Your task to perform on an android device: toggle show notifications on the lock screen Image 0: 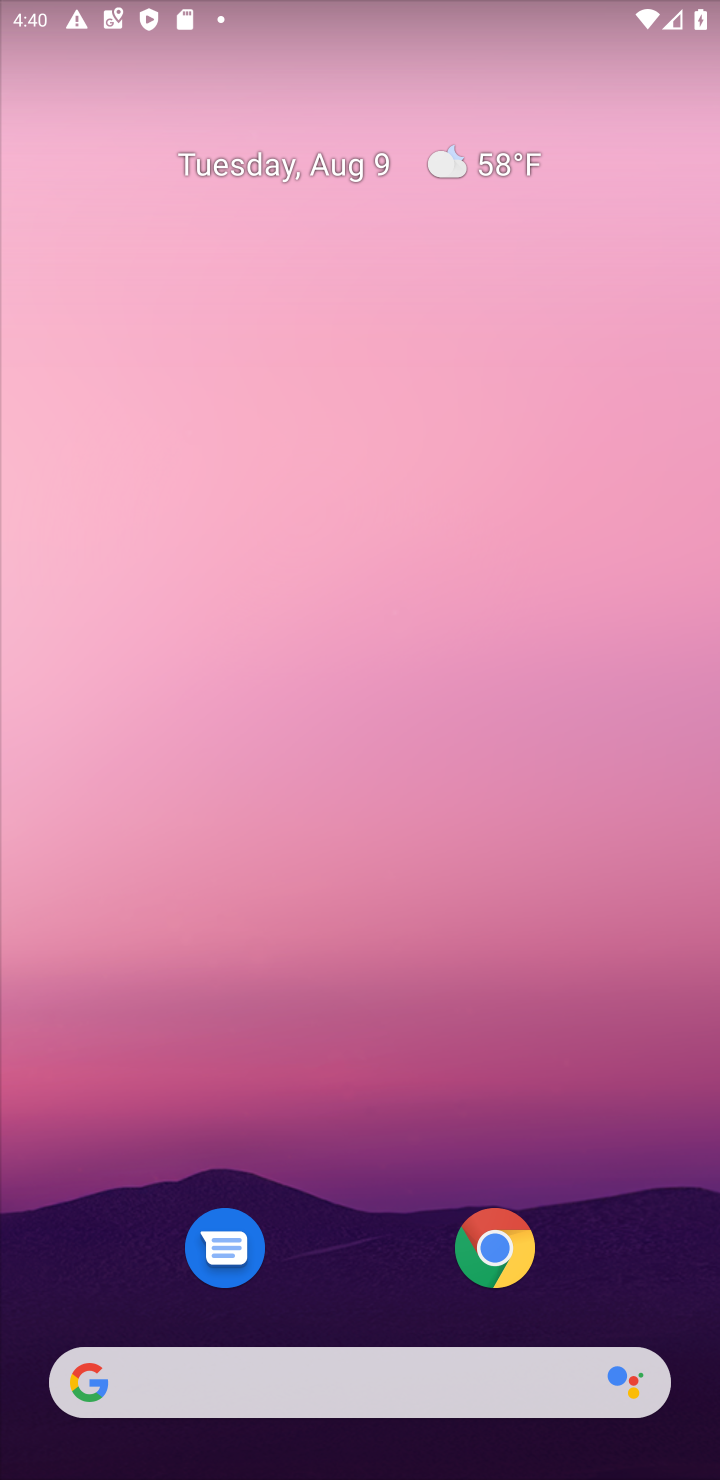
Step 0: drag from (308, 974) to (151, 263)
Your task to perform on an android device: toggle show notifications on the lock screen Image 1: 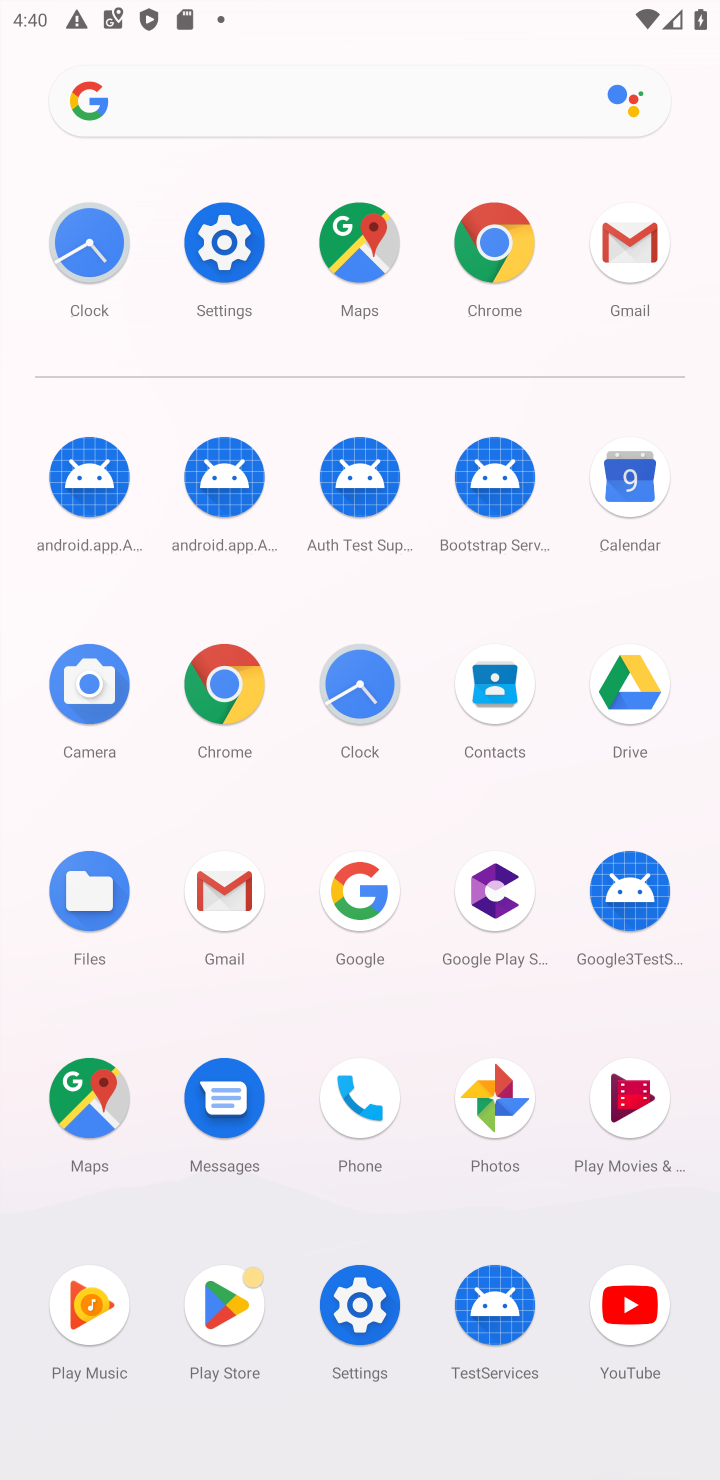
Step 1: click (368, 1312)
Your task to perform on an android device: toggle show notifications on the lock screen Image 2: 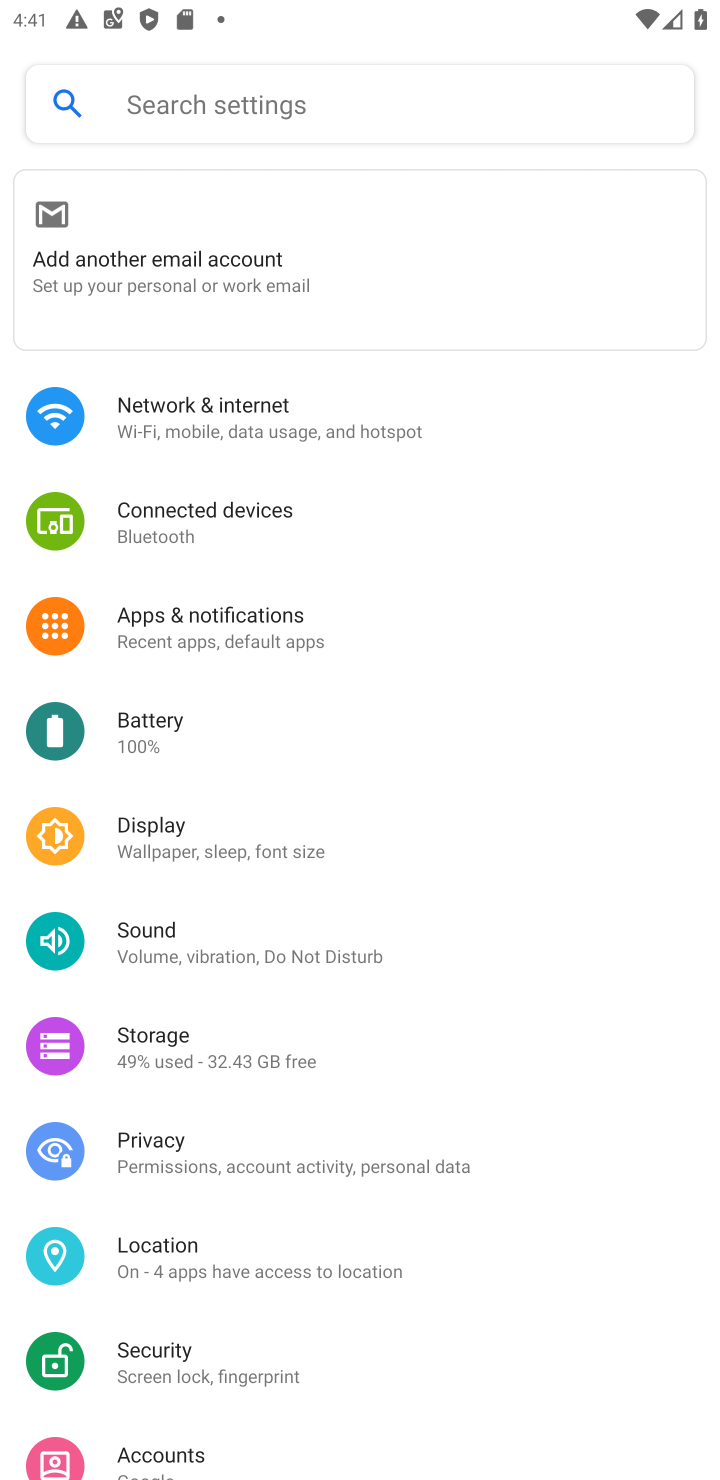
Step 2: click (237, 630)
Your task to perform on an android device: toggle show notifications on the lock screen Image 3: 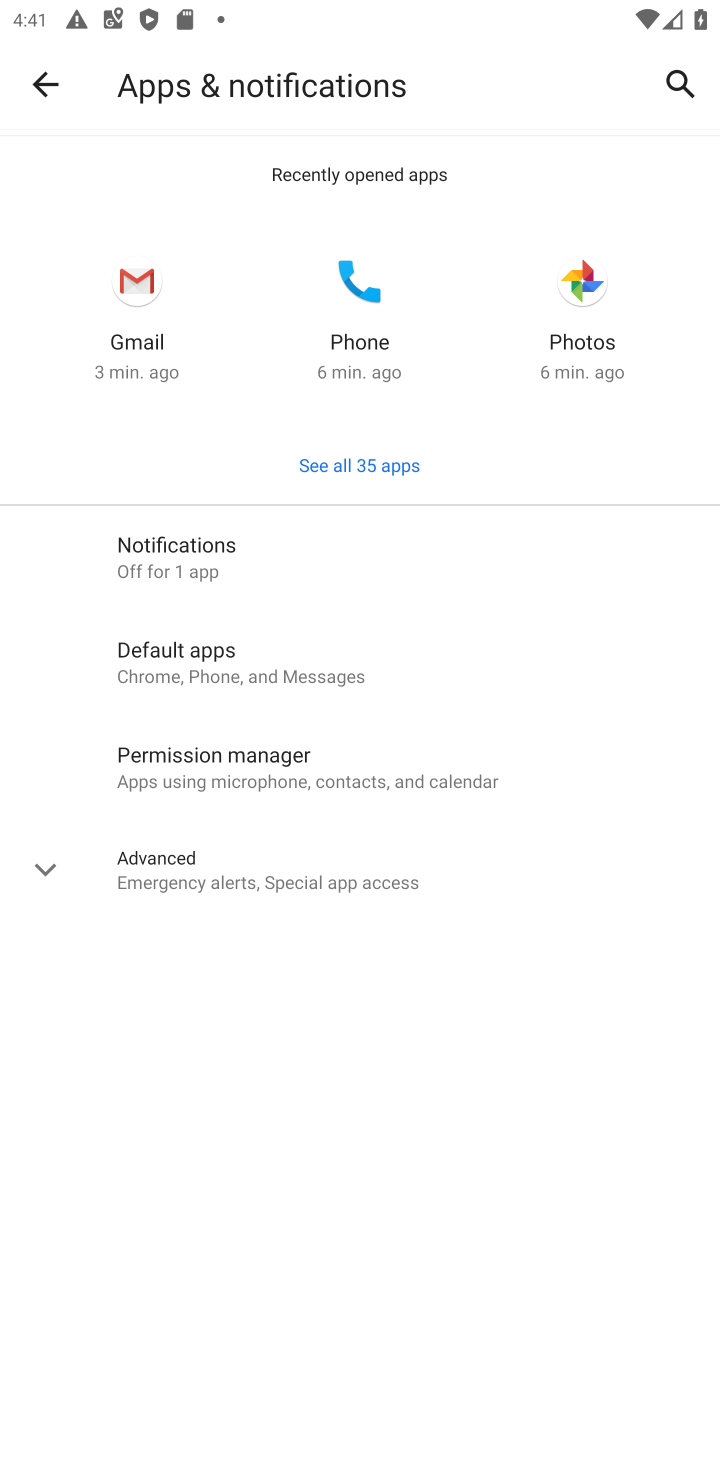
Step 3: click (185, 556)
Your task to perform on an android device: toggle show notifications on the lock screen Image 4: 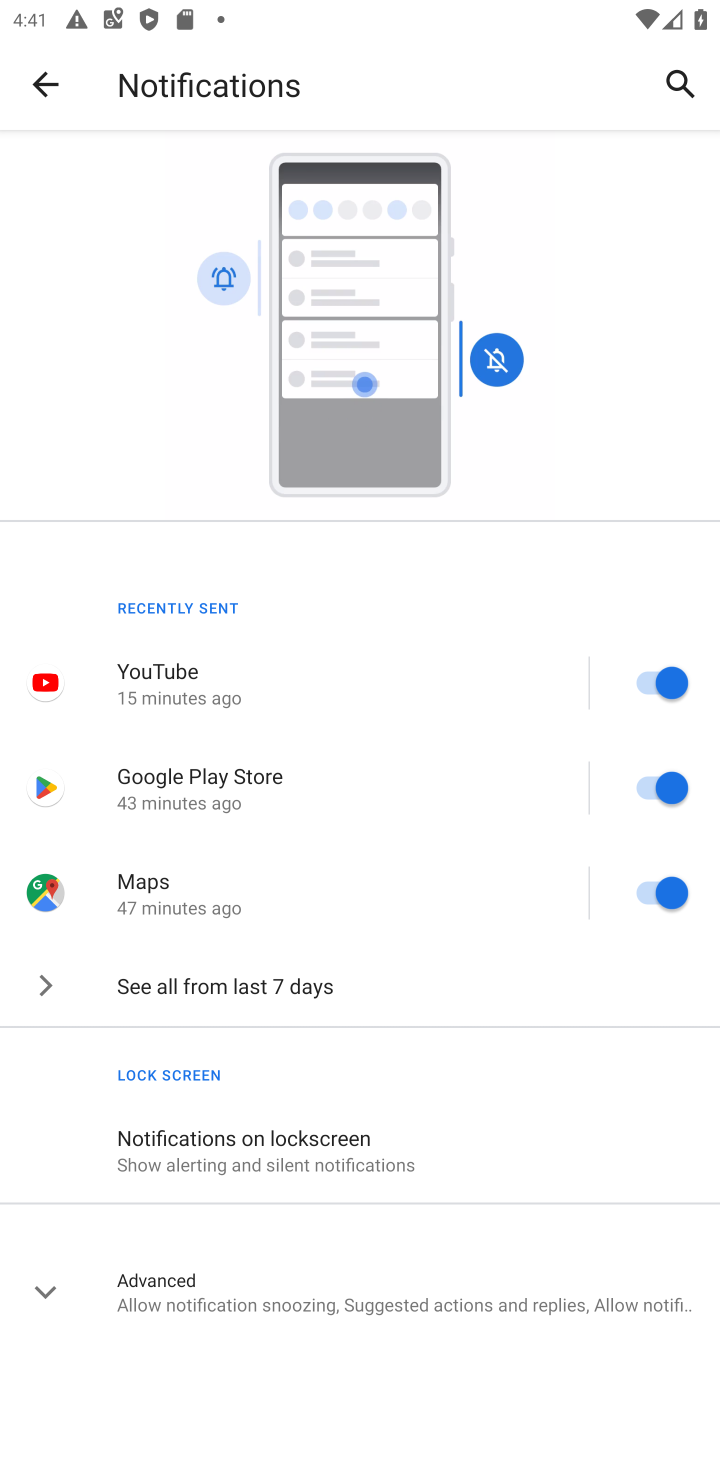
Step 4: click (320, 1139)
Your task to perform on an android device: toggle show notifications on the lock screen Image 5: 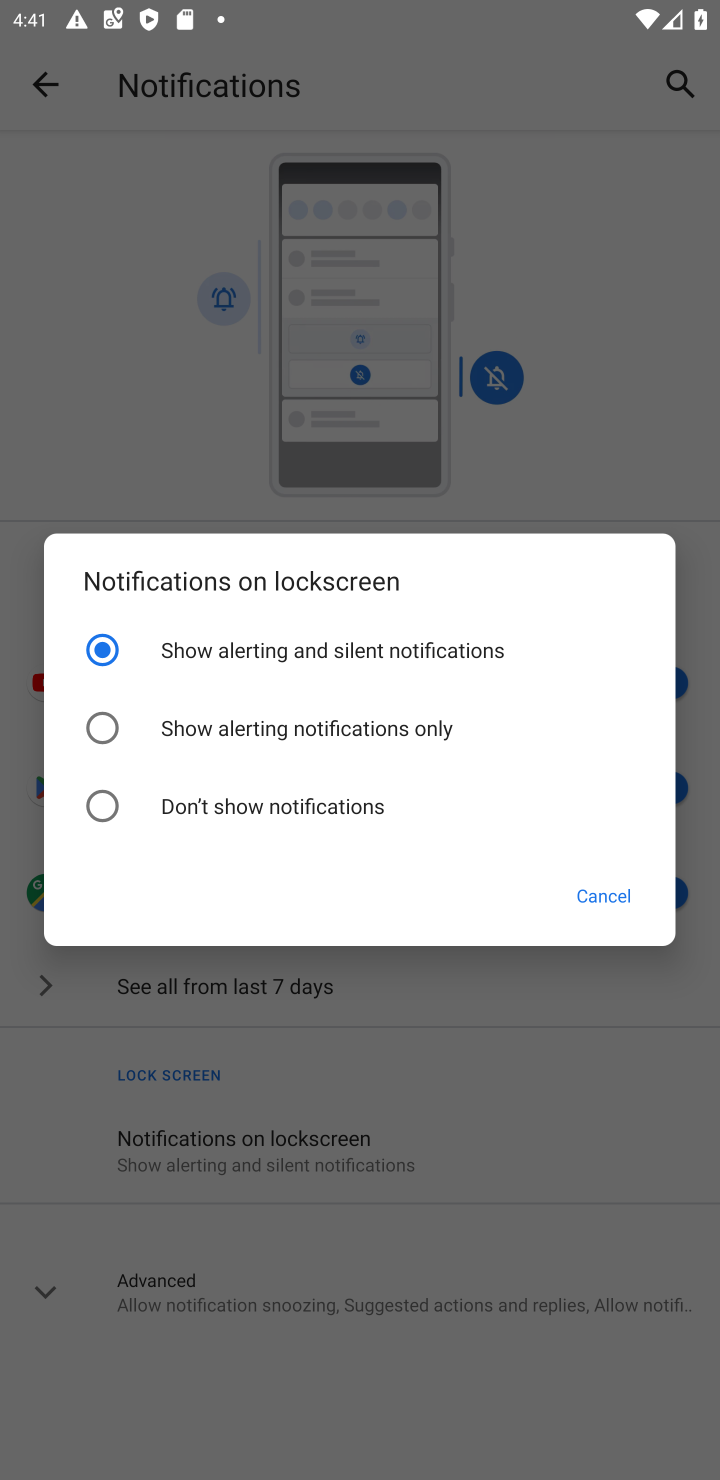
Step 5: click (280, 729)
Your task to perform on an android device: toggle show notifications on the lock screen Image 6: 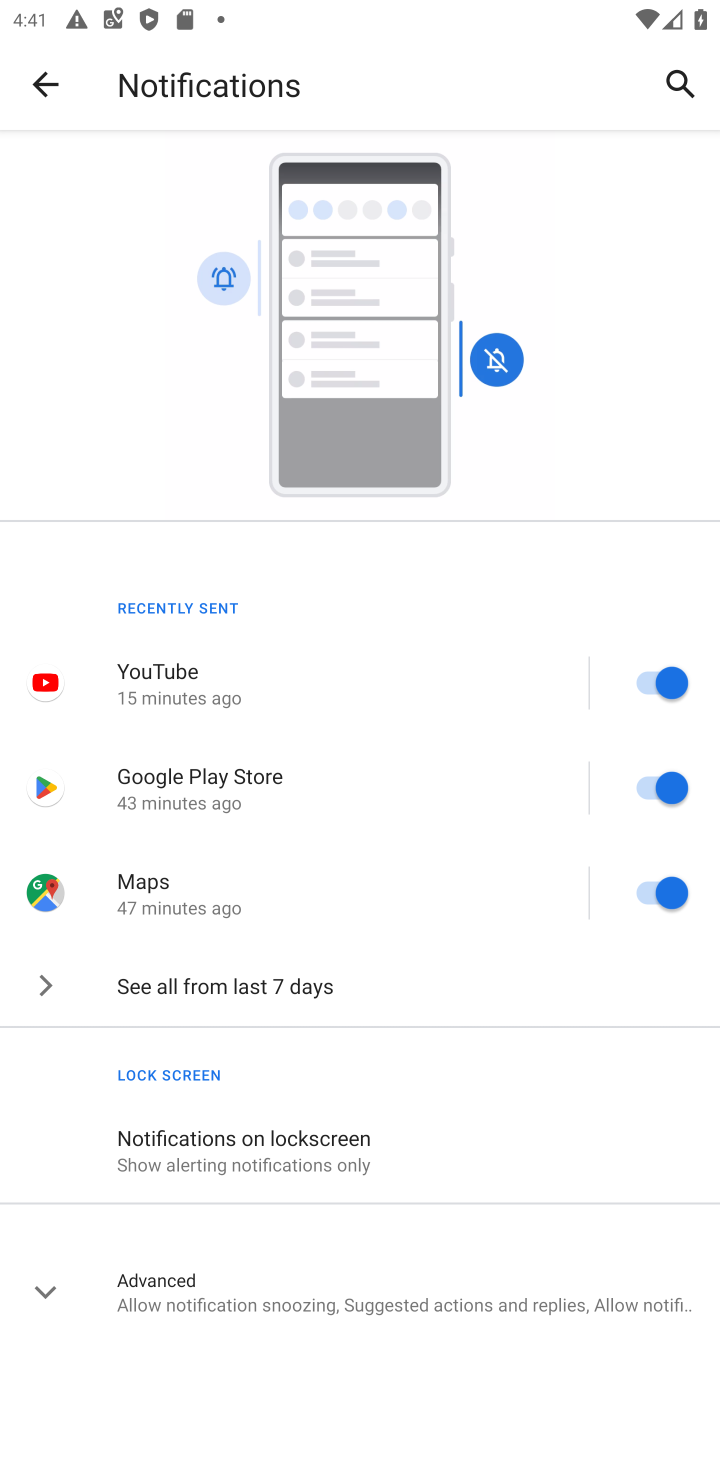
Step 6: task complete